Your task to perform on an android device: Open Google Chrome and open the bookmarks view Image 0: 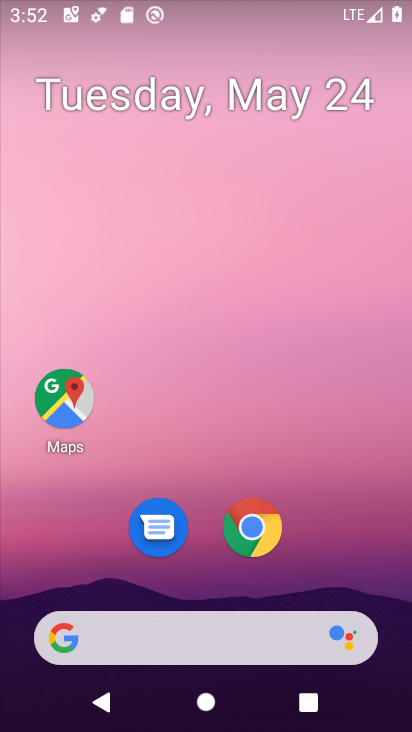
Step 0: click (257, 523)
Your task to perform on an android device: Open Google Chrome and open the bookmarks view Image 1: 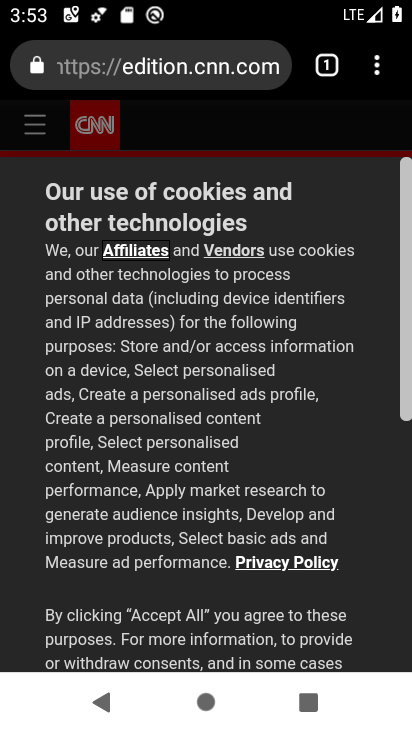
Step 1: click (375, 72)
Your task to perform on an android device: Open Google Chrome and open the bookmarks view Image 2: 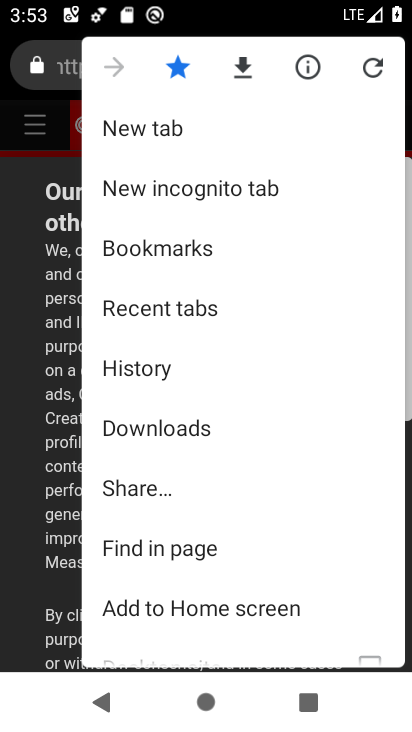
Step 2: click (189, 242)
Your task to perform on an android device: Open Google Chrome and open the bookmarks view Image 3: 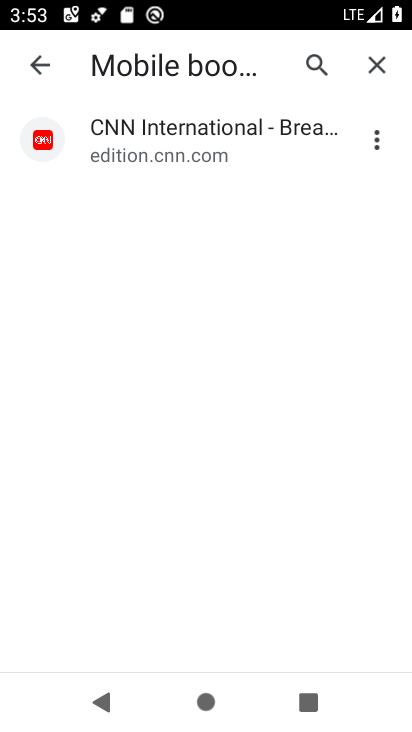
Step 3: task complete